Your task to perform on an android device: find which apps use the phone's location Image 0: 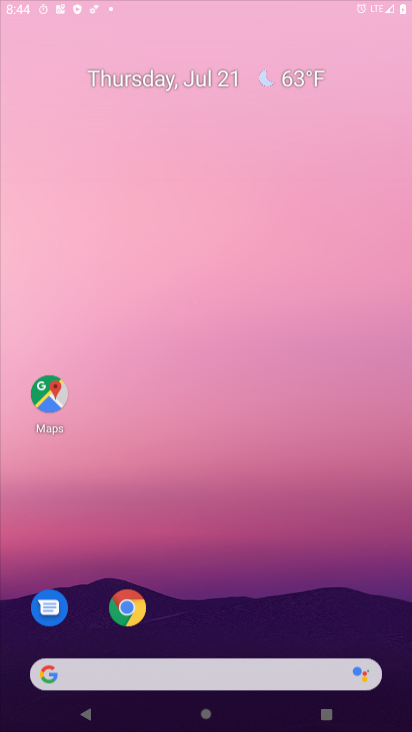
Step 0: press home button
Your task to perform on an android device: find which apps use the phone's location Image 1: 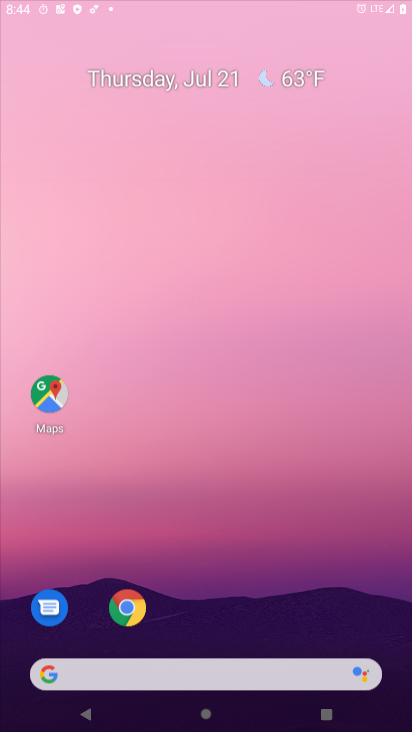
Step 1: click (400, 462)
Your task to perform on an android device: find which apps use the phone's location Image 2: 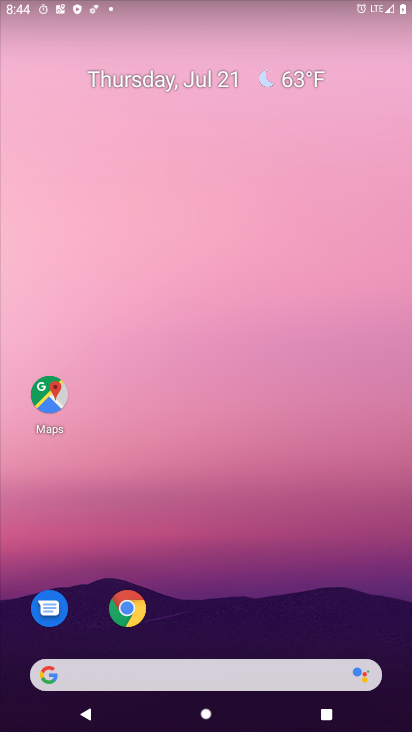
Step 2: press home button
Your task to perform on an android device: find which apps use the phone's location Image 3: 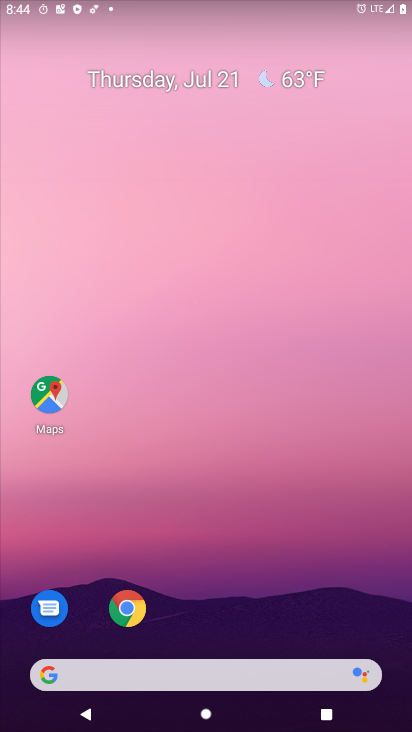
Step 3: drag from (300, 620) to (303, 15)
Your task to perform on an android device: find which apps use the phone's location Image 4: 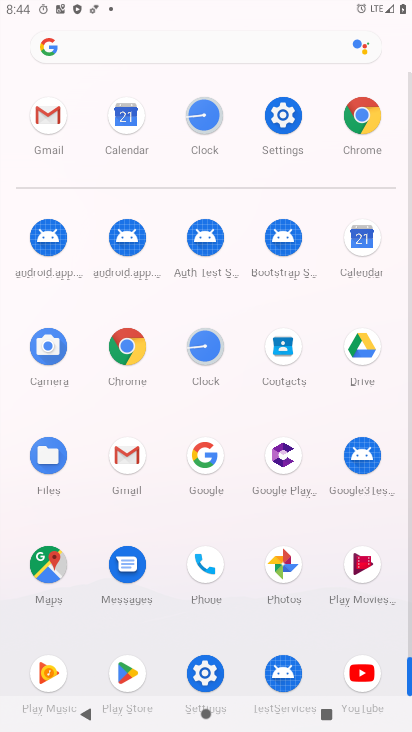
Step 4: click (212, 586)
Your task to perform on an android device: find which apps use the phone's location Image 5: 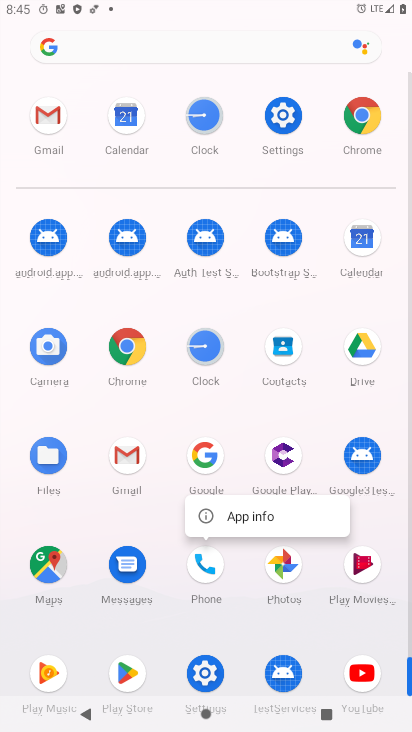
Step 5: click (232, 501)
Your task to perform on an android device: find which apps use the phone's location Image 6: 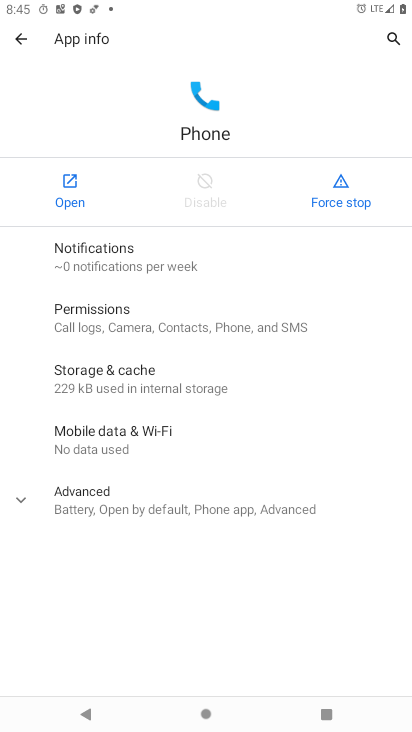
Step 6: click (102, 328)
Your task to perform on an android device: find which apps use the phone's location Image 7: 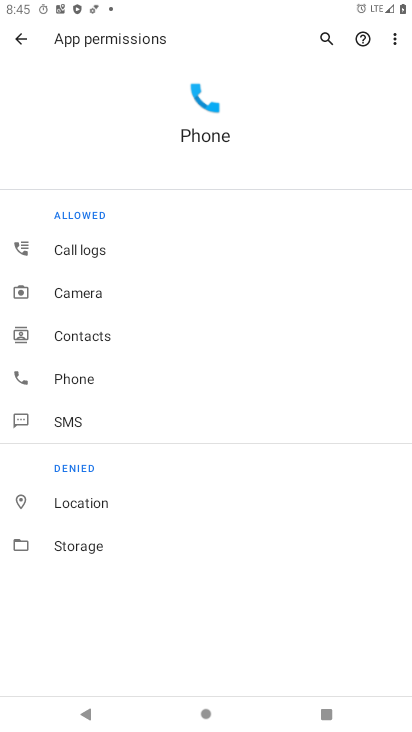
Step 7: click (51, 512)
Your task to perform on an android device: find which apps use the phone's location Image 8: 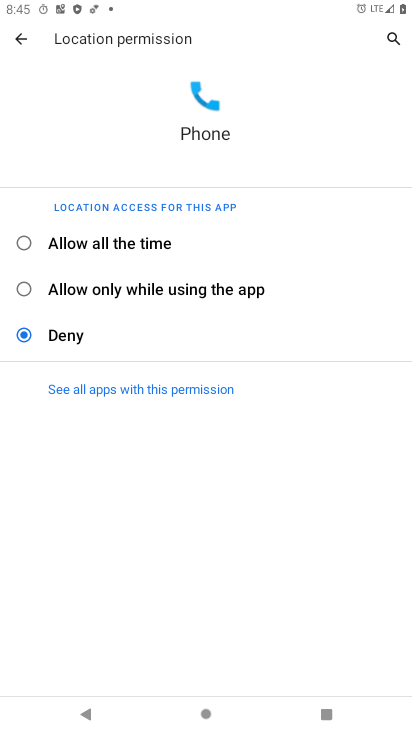
Step 8: click (166, 380)
Your task to perform on an android device: find which apps use the phone's location Image 9: 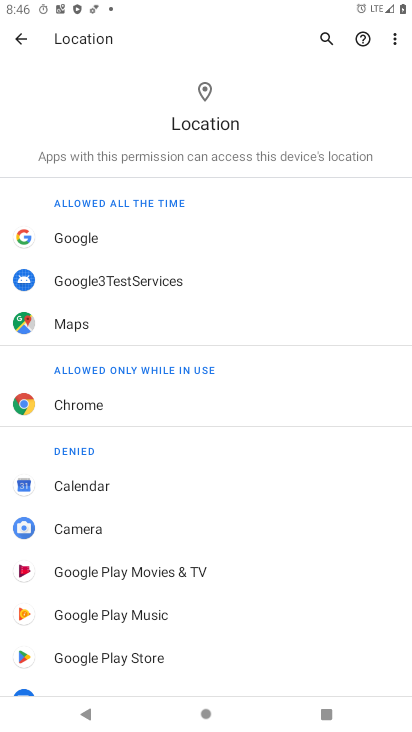
Step 9: task complete